Your task to perform on an android device: empty trash in the gmail app Image 0: 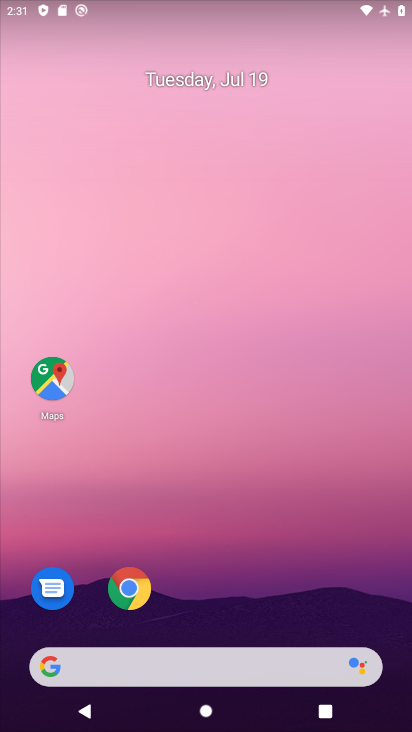
Step 0: press home button
Your task to perform on an android device: empty trash in the gmail app Image 1: 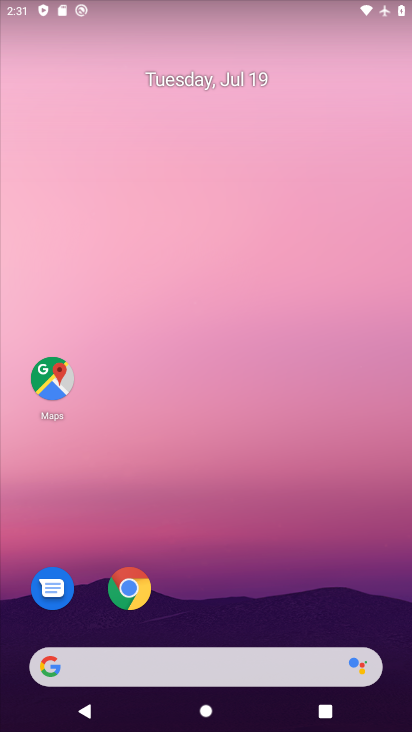
Step 1: drag from (218, 635) to (401, 239)
Your task to perform on an android device: empty trash in the gmail app Image 2: 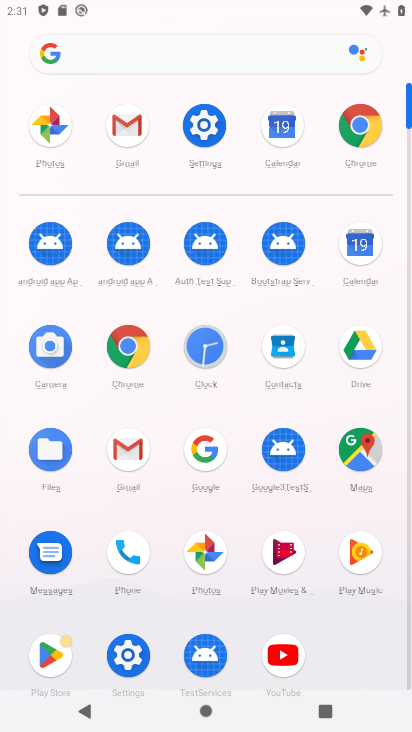
Step 2: click (121, 129)
Your task to perform on an android device: empty trash in the gmail app Image 3: 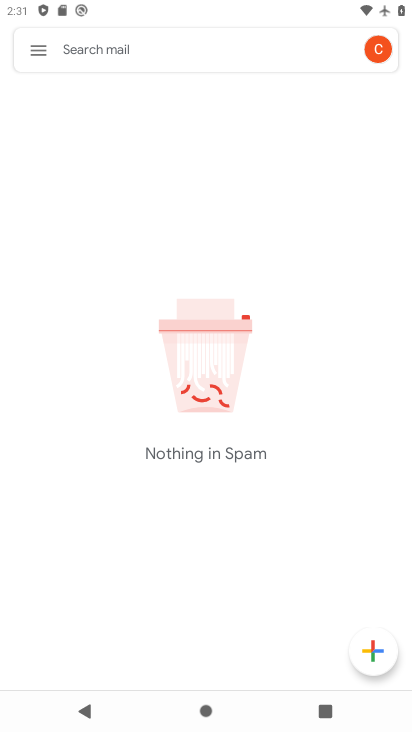
Step 3: click (34, 48)
Your task to perform on an android device: empty trash in the gmail app Image 4: 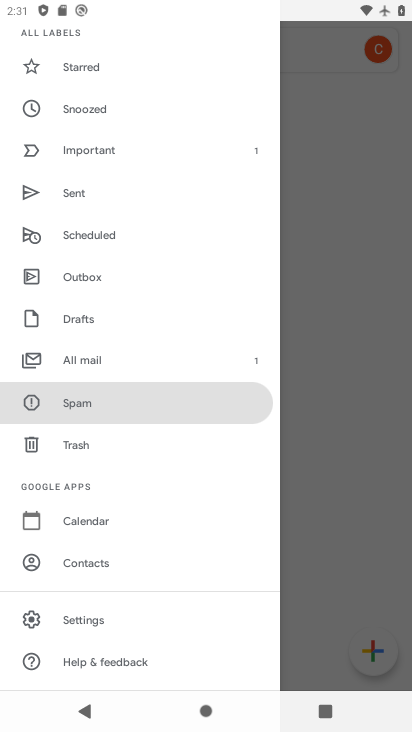
Step 4: click (77, 444)
Your task to perform on an android device: empty trash in the gmail app Image 5: 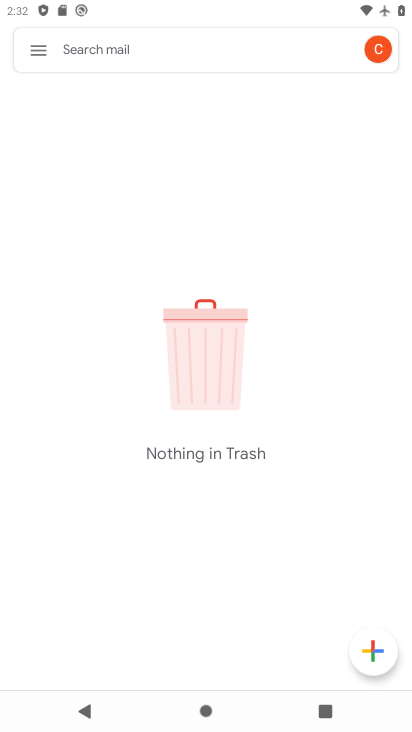
Step 5: task complete